Your task to perform on an android device: add a contact Image 0: 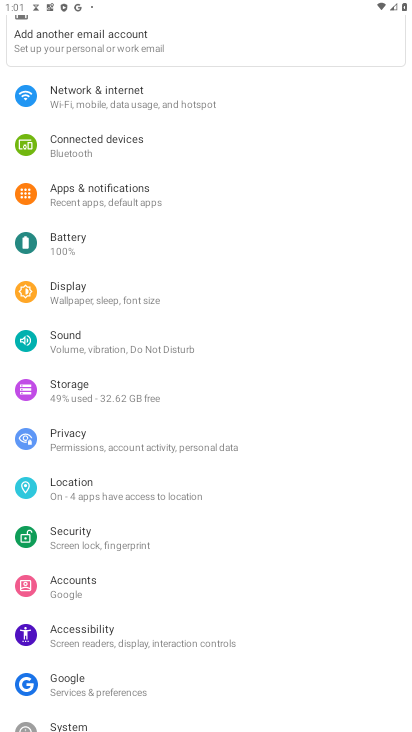
Step 0: press home button
Your task to perform on an android device: add a contact Image 1: 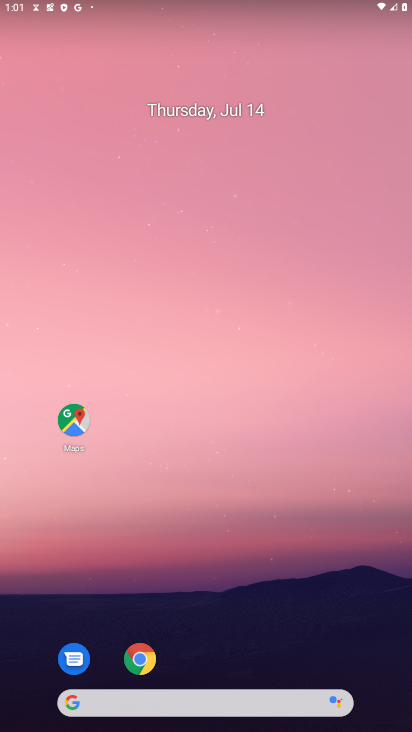
Step 1: drag from (14, 690) to (324, 0)
Your task to perform on an android device: add a contact Image 2: 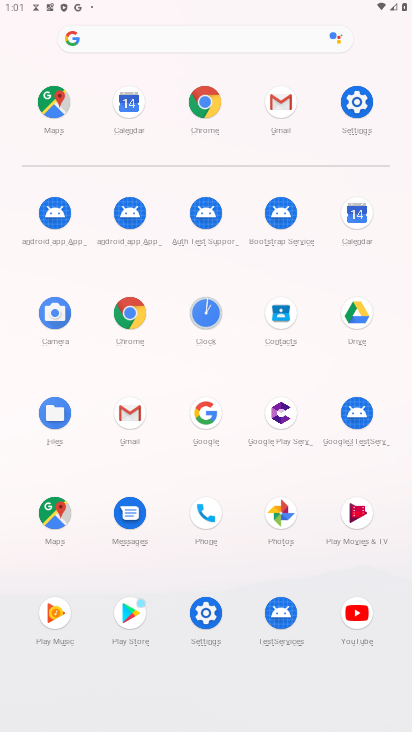
Step 2: click (279, 313)
Your task to perform on an android device: add a contact Image 3: 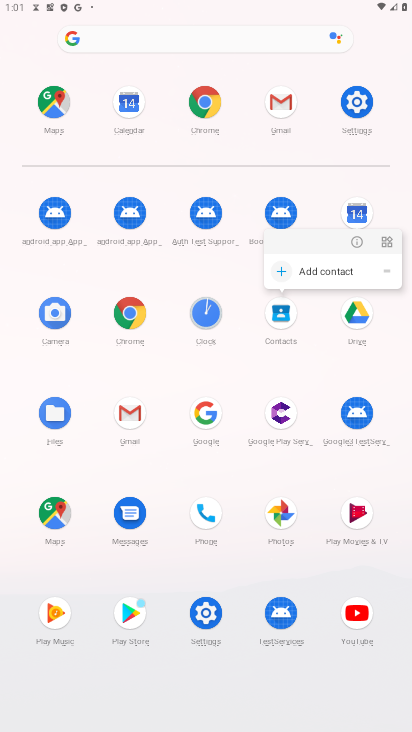
Step 3: click (275, 328)
Your task to perform on an android device: add a contact Image 4: 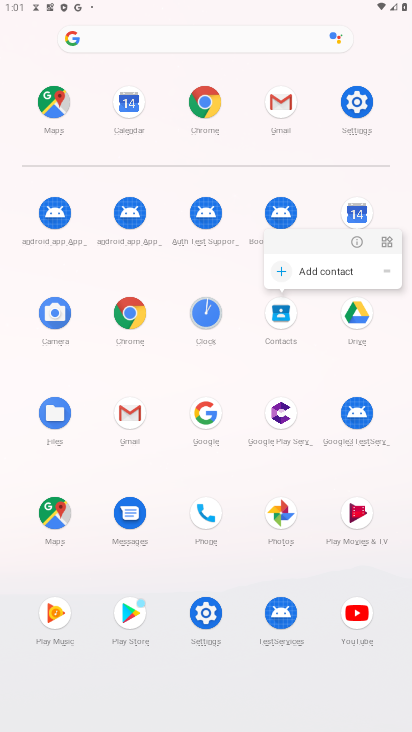
Step 4: click (279, 317)
Your task to perform on an android device: add a contact Image 5: 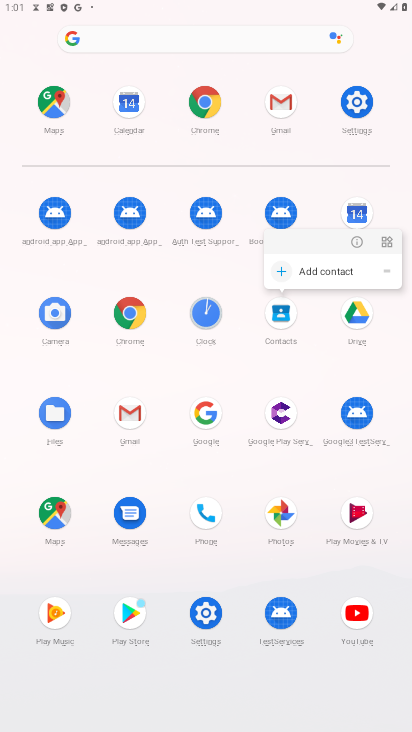
Step 5: click (328, 270)
Your task to perform on an android device: add a contact Image 6: 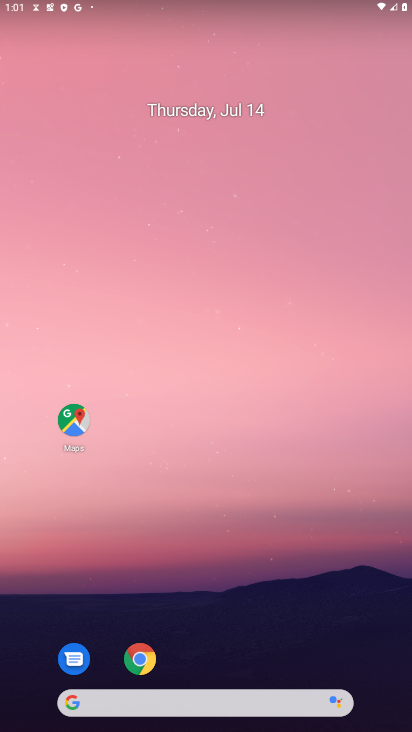
Step 6: task complete